Your task to perform on an android device: turn notification dots on Image 0: 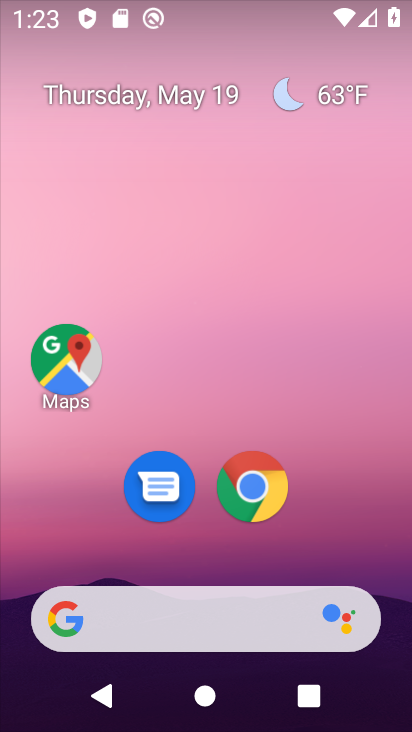
Step 0: drag from (333, 499) to (235, 26)
Your task to perform on an android device: turn notification dots on Image 1: 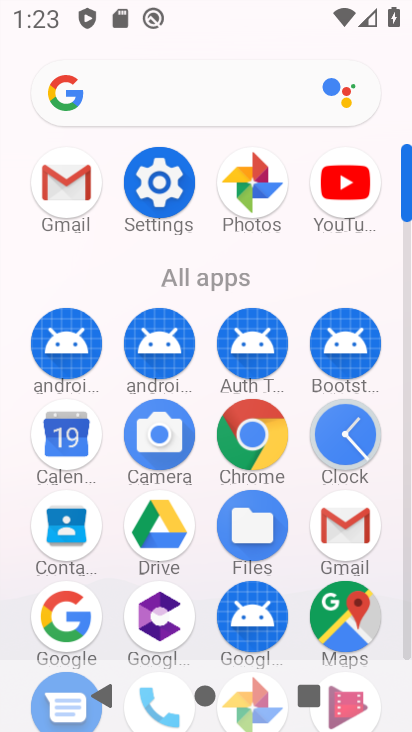
Step 1: click (171, 208)
Your task to perform on an android device: turn notification dots on Image 2: 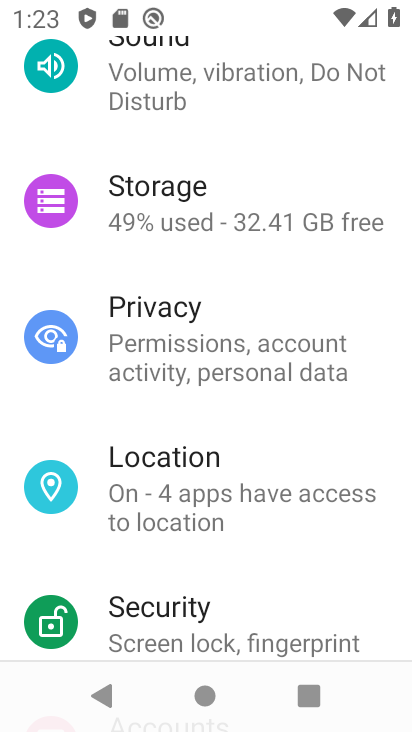
Step 2: drag from (286, 595) to (191, 695)
Your task to perform on an android device: turn notification dots on Image 3: 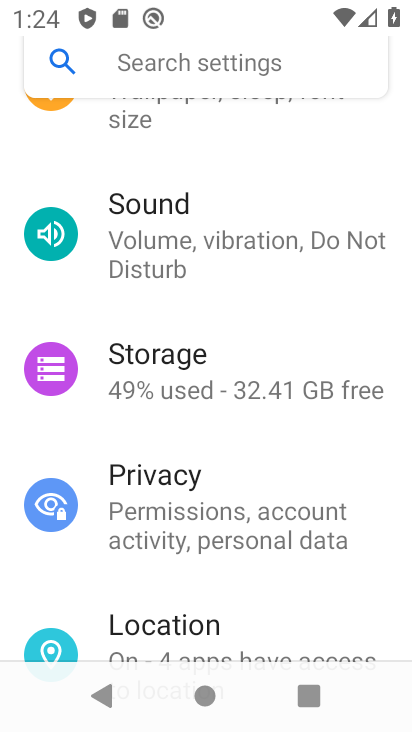
Step 3: drag from (231, 162) to (189, 621)
Your task to perform on an android device: turn notification dots on Image 4: 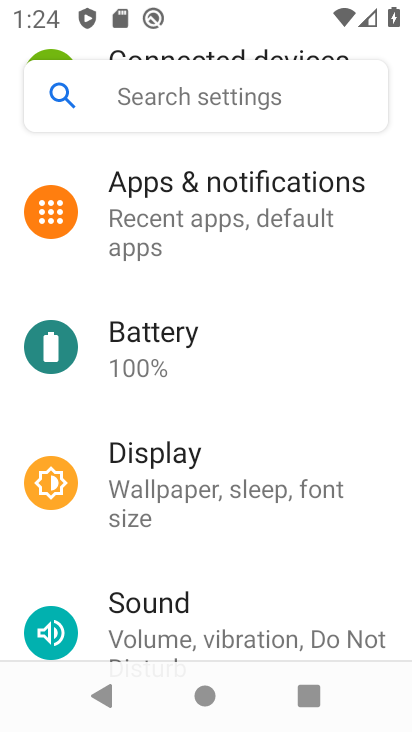
Step 4: click (207, 217)
Your task to perform on an android device: turn notification dots on Image 5: 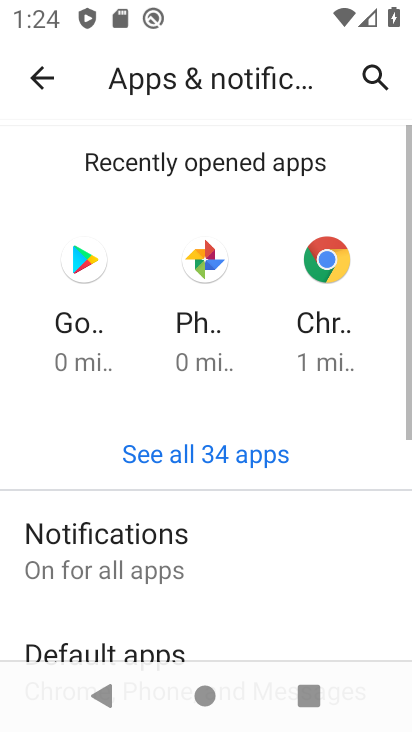
Step 5: click (170, 571)
Your task to perform on an android device: turn notification dots on Image 6: 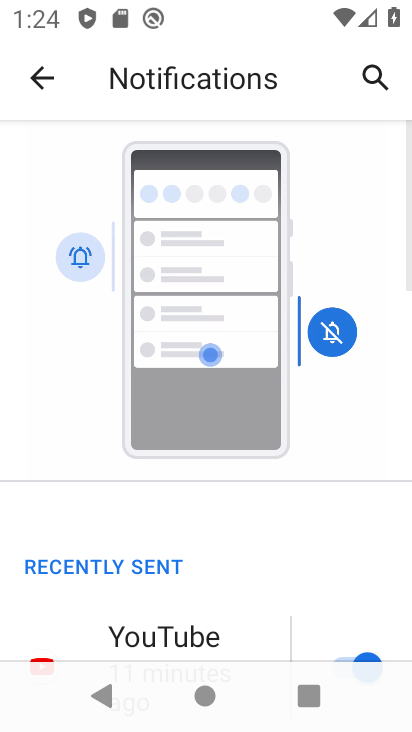
Step 6: drag from (259, 576) to (242, 111)
Your task to perform on an android device: turn notification dots on Image 7: 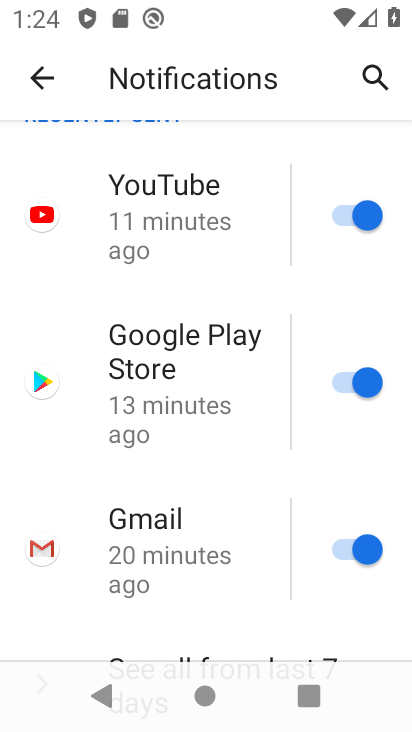
Step 7: drag from (220, 489) to (229, 136)
Your task to perform on an android device: turn notification dots on Image 8: 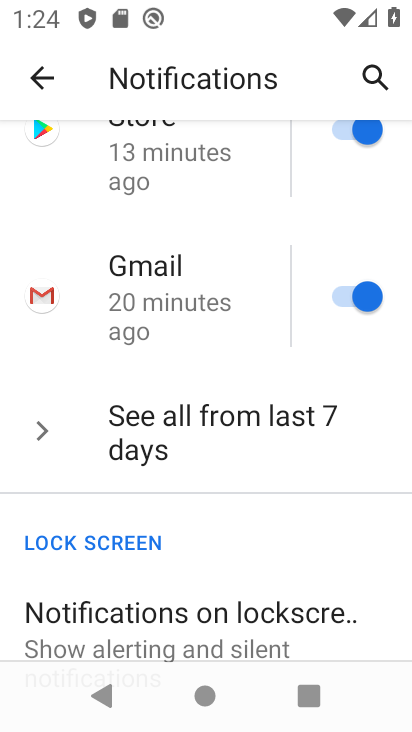
Step 8: click (224, 623)
Your task to perform on an android device: turn notification dots on Image 9: 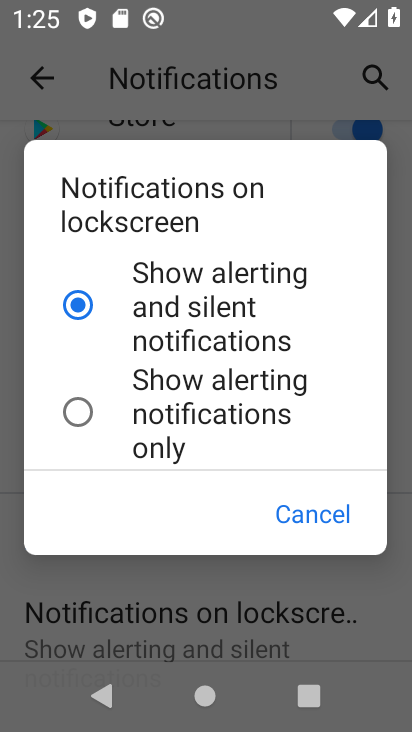
Step 9: click (316, 512)
Your task to perform on an android device: turn notification dots on Image 10: 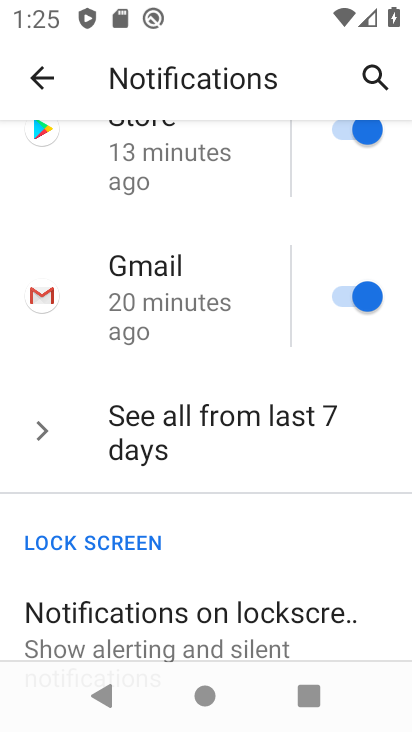
Step 10: drag from (232, 563) to (207, 87)
Your task to perform on an android device: turn notification dots on Image 11: 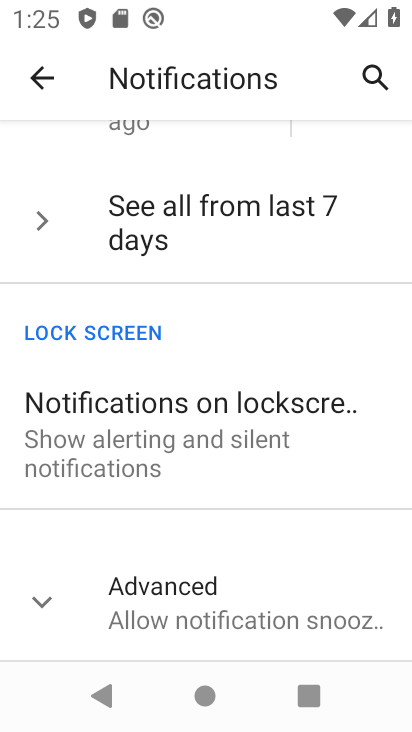
Step 11: click (210, 604)
Your task to perform on an android device: turn notification dots on Image 12: 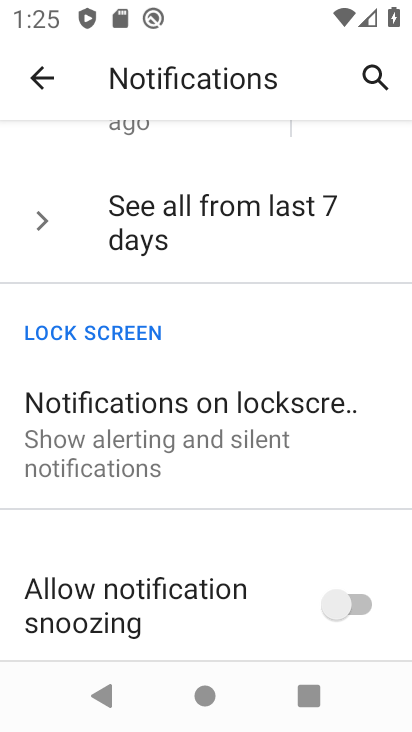
Step 12: task complete